Your task to perform on an android device: delete a single message in the gmail app Image 0: 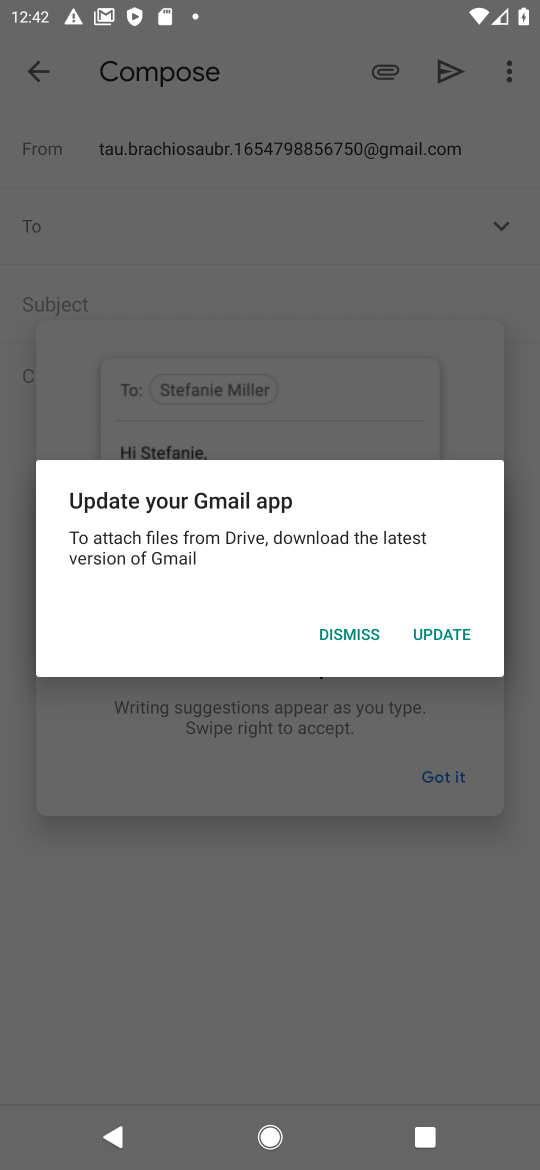
Step 0: press home button
Your task to perform on an android device: delete a single message in the gmail app Image 1: 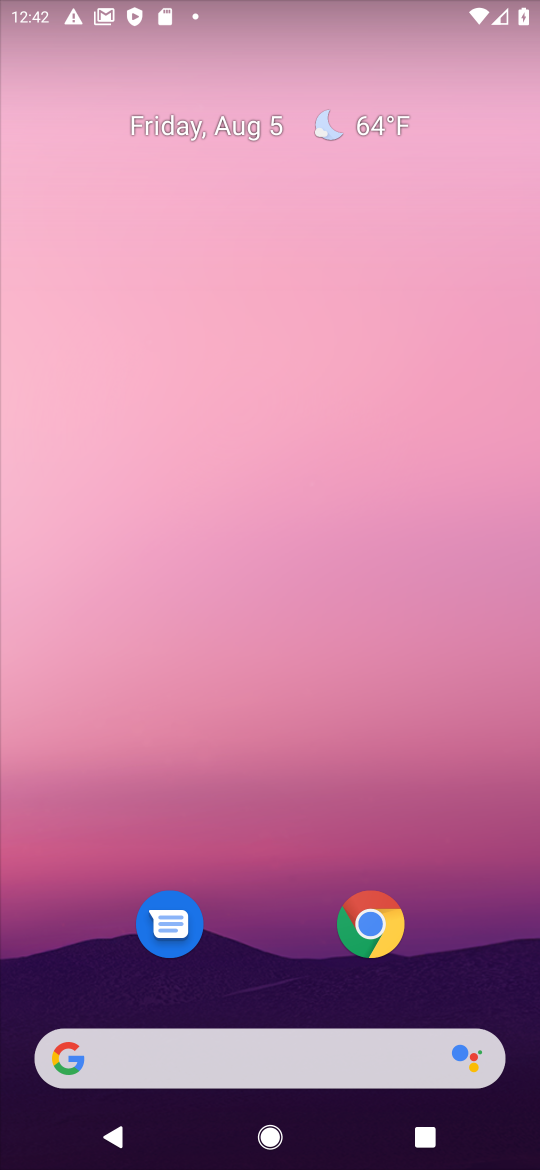
Step 1: drag from (284, 745) to (198, 80)
Your task to perform on an android device: delete a single message in the gmail app Image 2: 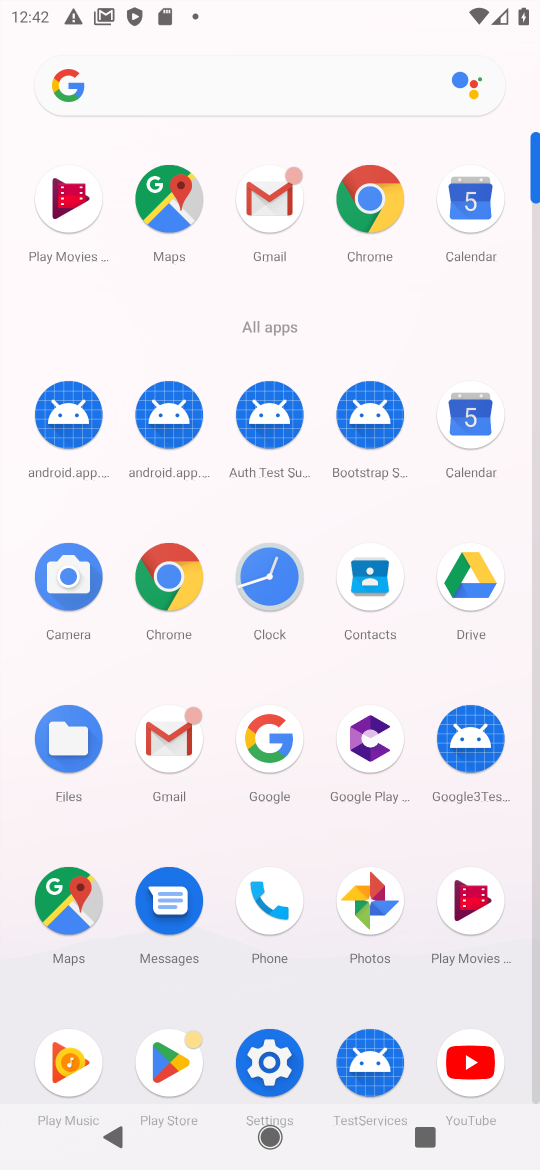
Step 2: click (272, 185)
Your task to perform on an android device: delete a single message in the gmail app Image 3: 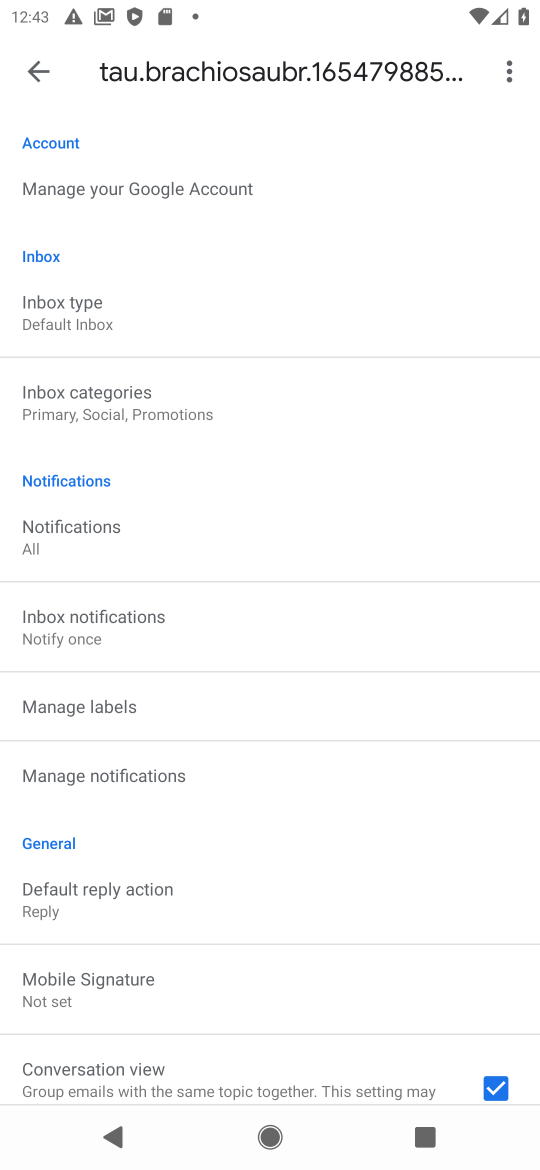
Step 3: click (38, 71)
Your task to perform on an android device: delete a single message in the gmail app Image 4: 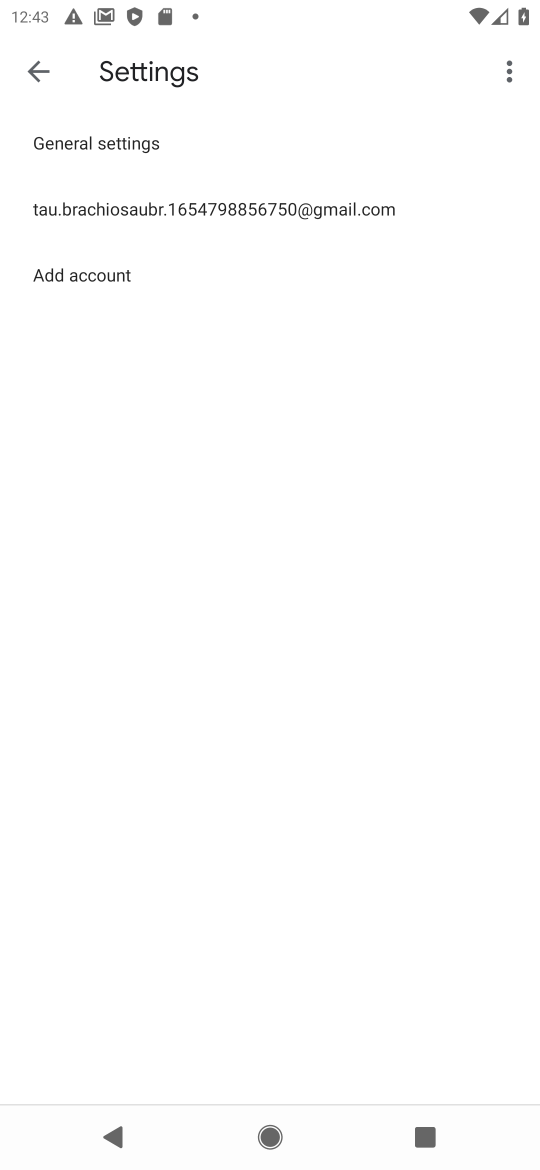
Step 4: click (38, 71)
Your task to perform on an android device: delete a single message in the gmail app Image 5: 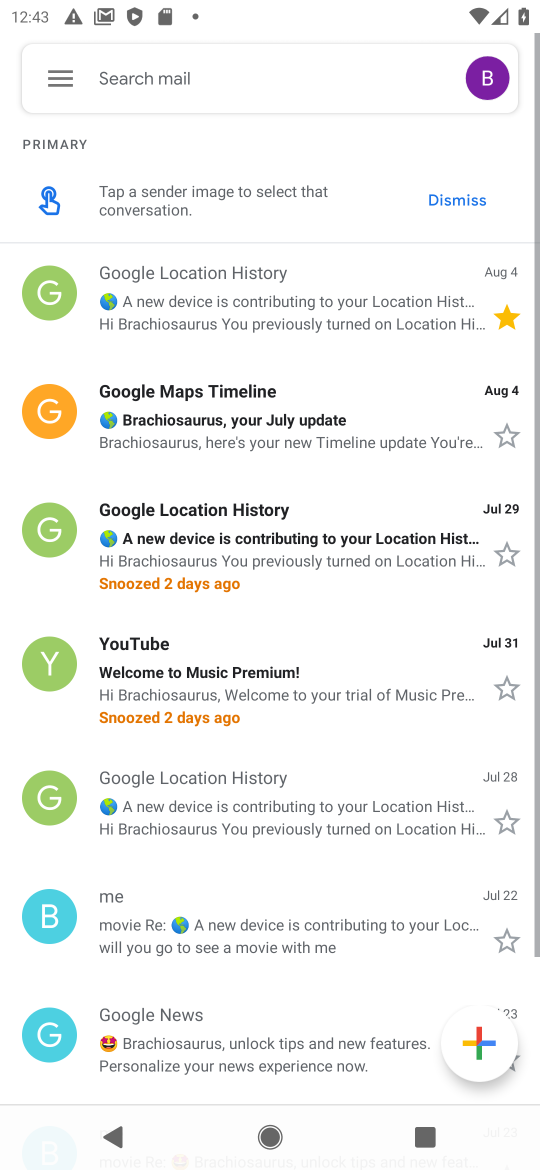
Step 5: click (284, 288)
Your task to perform on an android device: delete a single message in the gmail app Image 6: 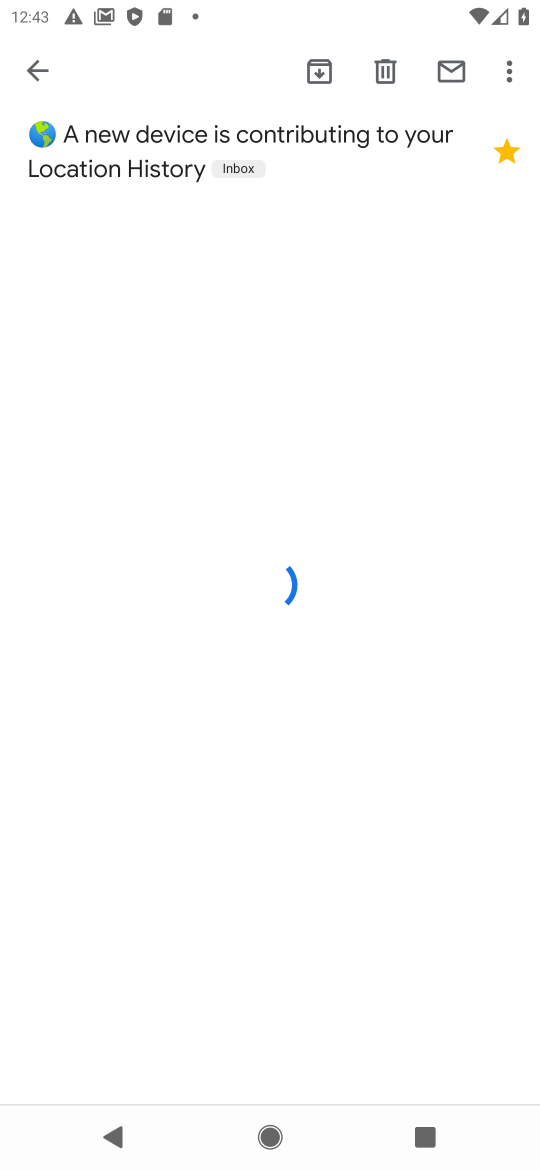
Step 6: click (382, 70)
Your task to perform on an android device: delete a single message in the gmail app Image 7: 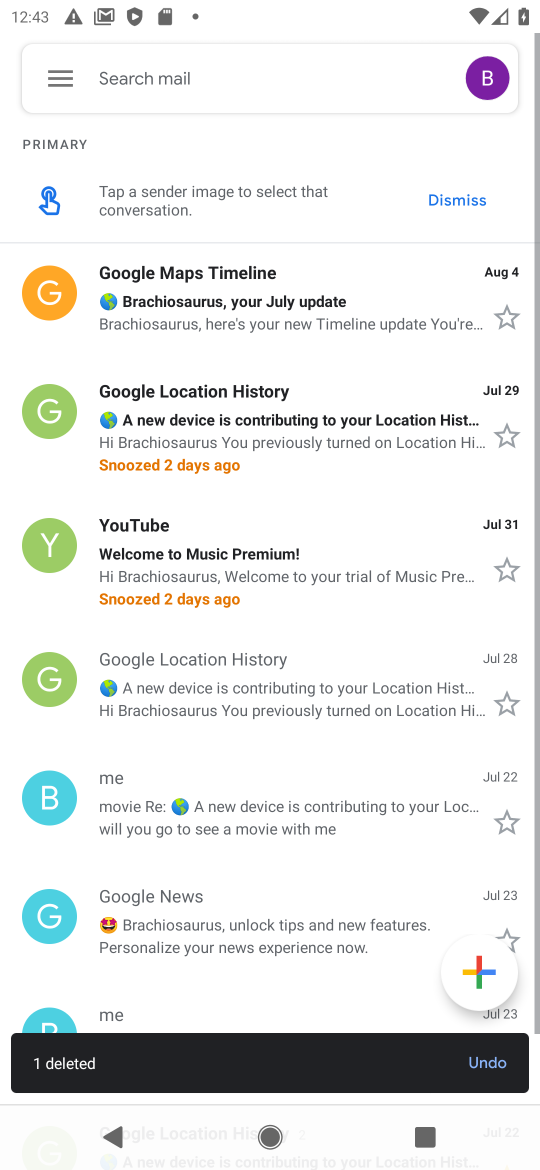
Step 7: task complete